Your task to perform on an android device: turn on wifi Image 0: 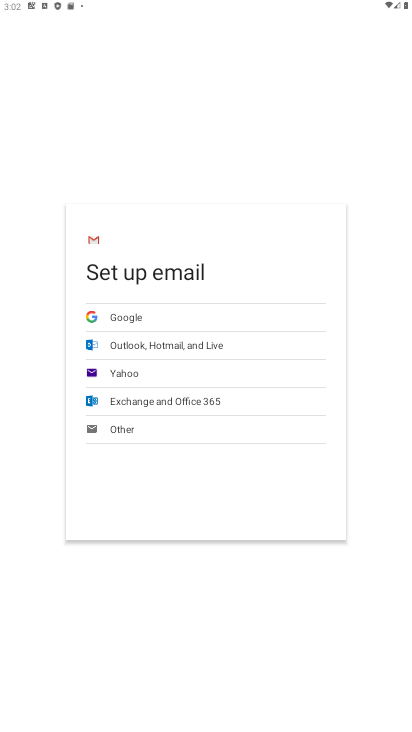
Step 0: press home button
Your task to perform on an android device: turn on wifi Image 1: 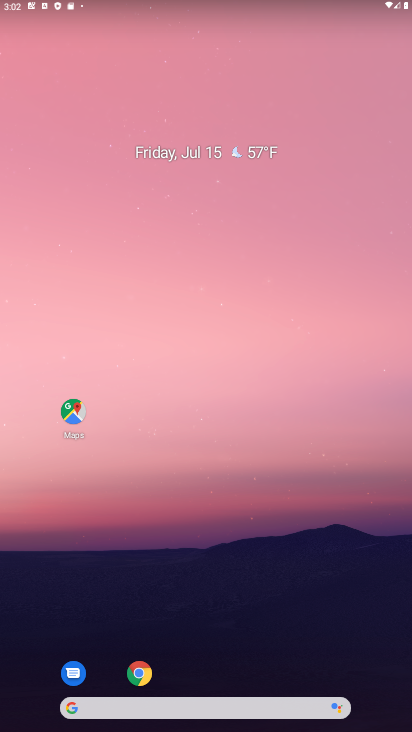
Step 1: drag from (300, 616) to (294, 125)
Your task to perform on an android device: turn on wifi Image 2: 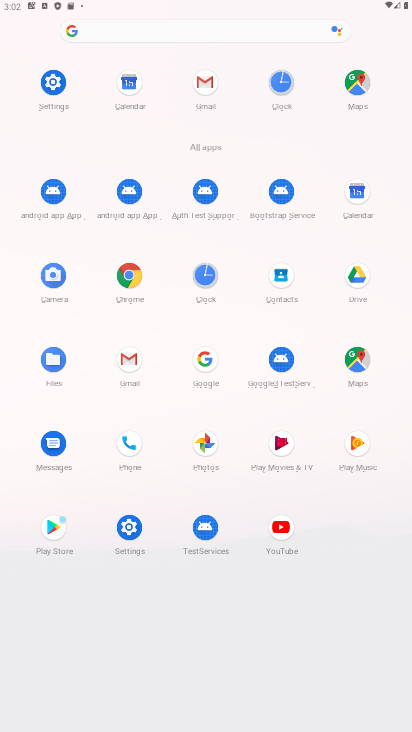
Step 2: click (131, 528)
Your task to perform on an android device: turn on wifi Image 3: 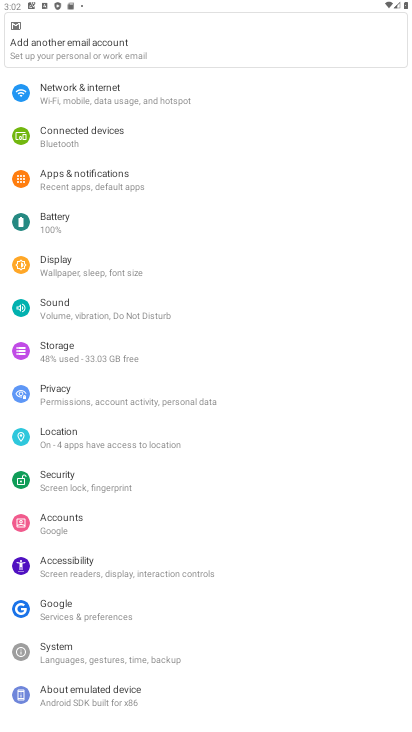
Step 3: click (73, 90)
Your task to perform on an android device: turn on wifi Image 4: 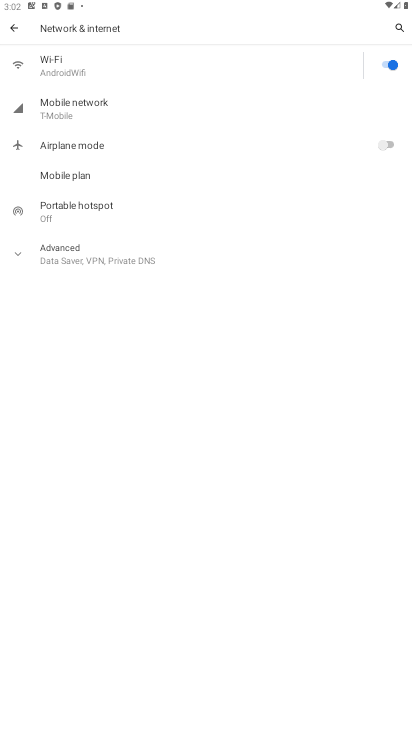
Step 4: task complete